Your task to perform on an android device: turn on data saver in the chrome app Image 0: 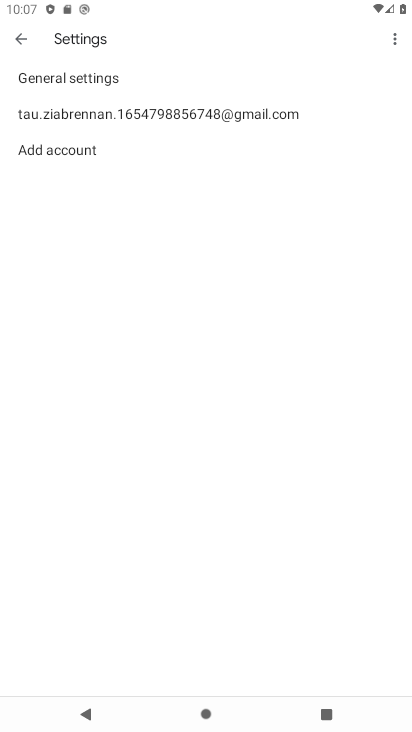
Step 0: press home button
Your task to perform on an android device: turn on data saver in the chrome app Image 1: 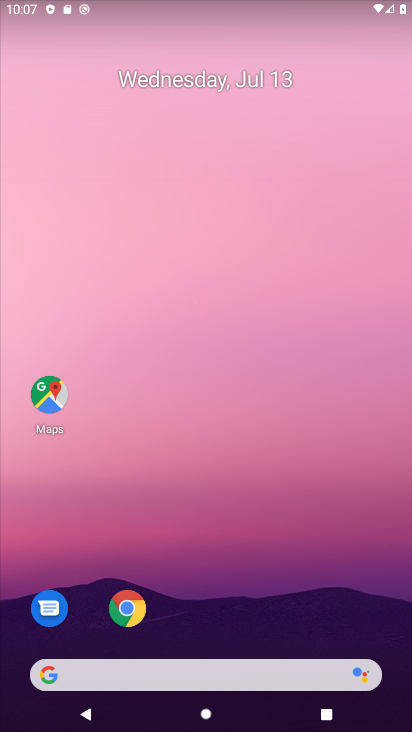
Step 1: click (127, 608)
Your task to perform on an android device: turn on data saver in the chrome app Image 2: 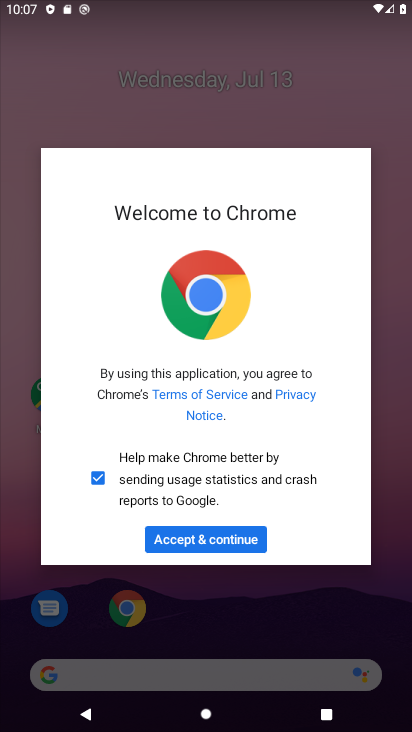
Step 2: click (180, 539)
Your task to perform on an android device: turn on data saver in the chrome app Image 3: 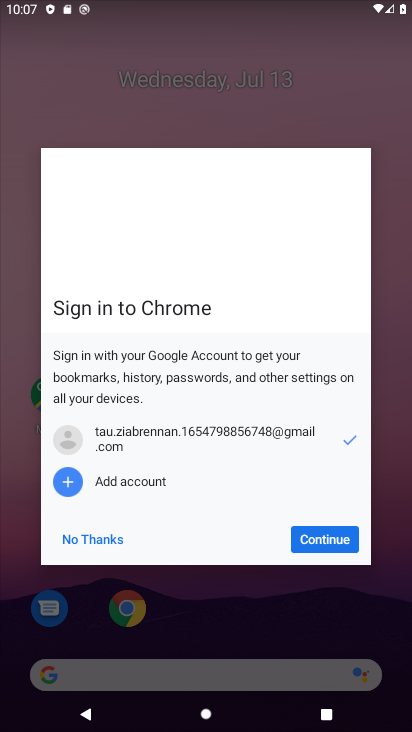
Step 3: click (315, 541)
Your task to perform on an android device: turn on data saver in the chrome app Image 4: 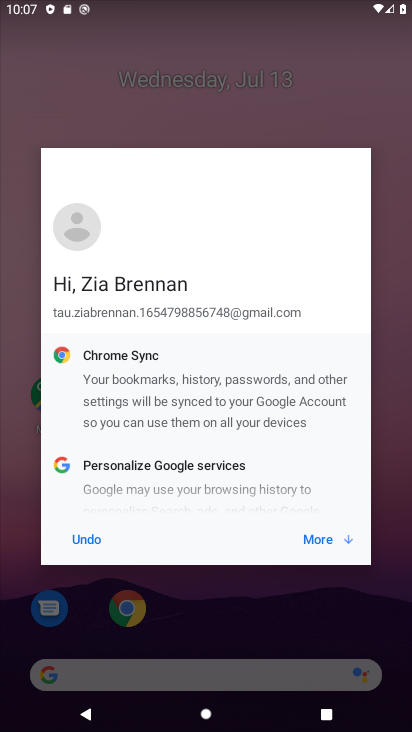
Step 4: click (340, 542)
Your task to perform on an android device: turn on data saver in the chrome app Image 5: 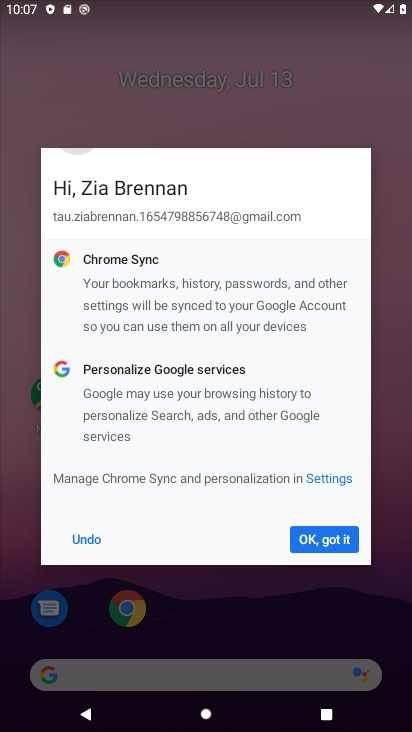
Step 5: click (327, 539)
Your task to perform on an android device: turn on data saver in the chrome app Image 6: 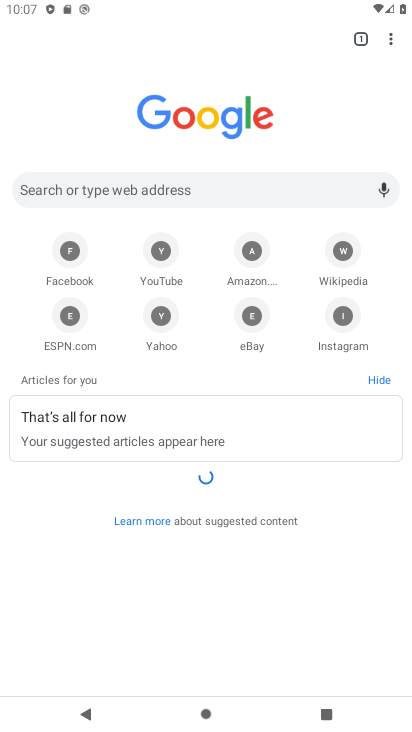
Step 6: drag from (389, 32) to (258, 331)
Your task to perform on an android device: turn on data saver in the chrome app Image 7: 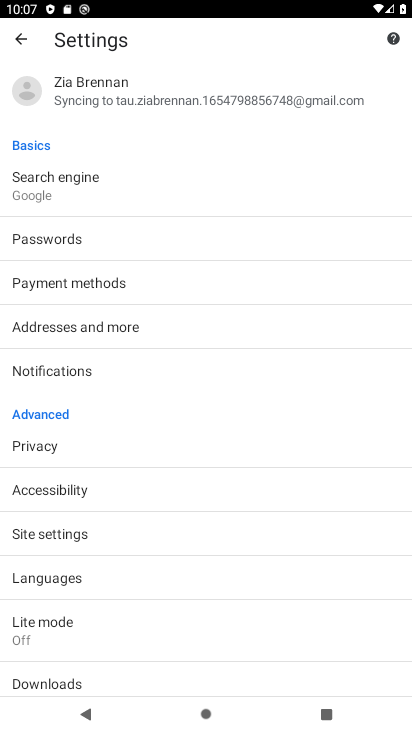
Step 7: click (67, 624)
Your task to perform on an android device: turn on data saver in the chrome app Image 8: 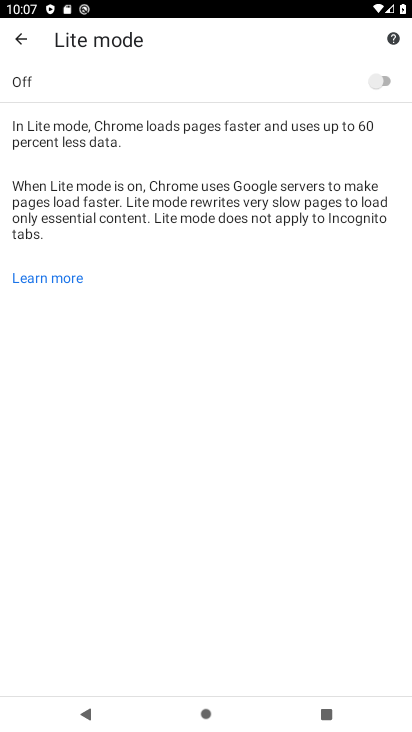
Step 8: click (383, 78)
Your task to perform on an android device: turn on data saver in the chrome app Image 9: 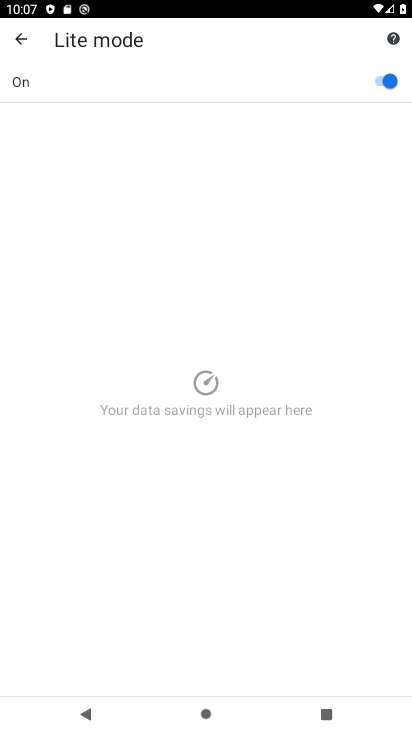
Step 9: task complete